Your task to perform on an android device: add a contact in the contacts app Image 0: 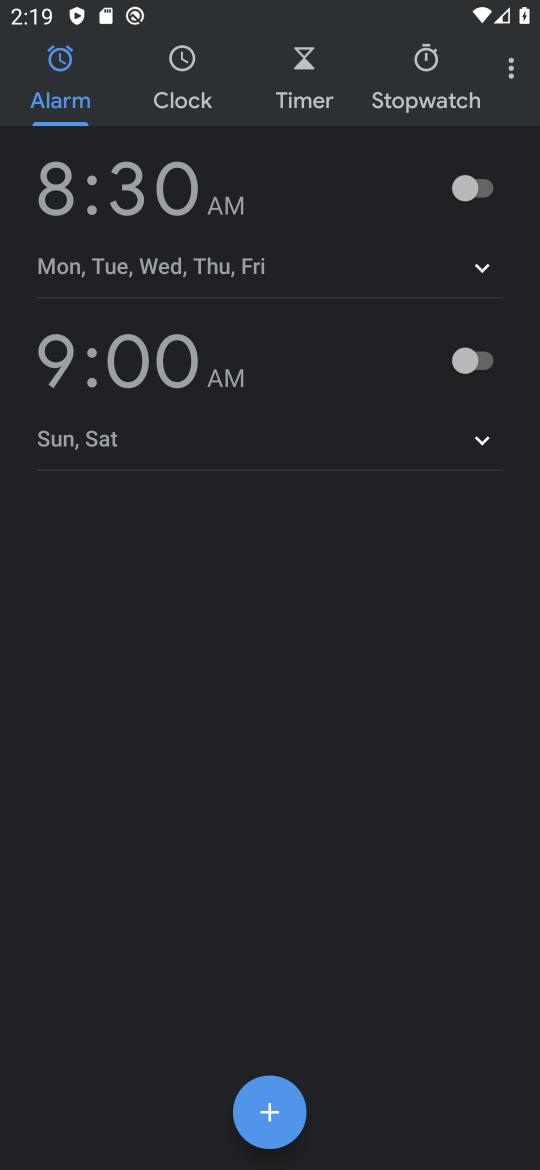
Step 0: press home button
Your task to perform on an android device: add a contact in the contacts app Image 1: 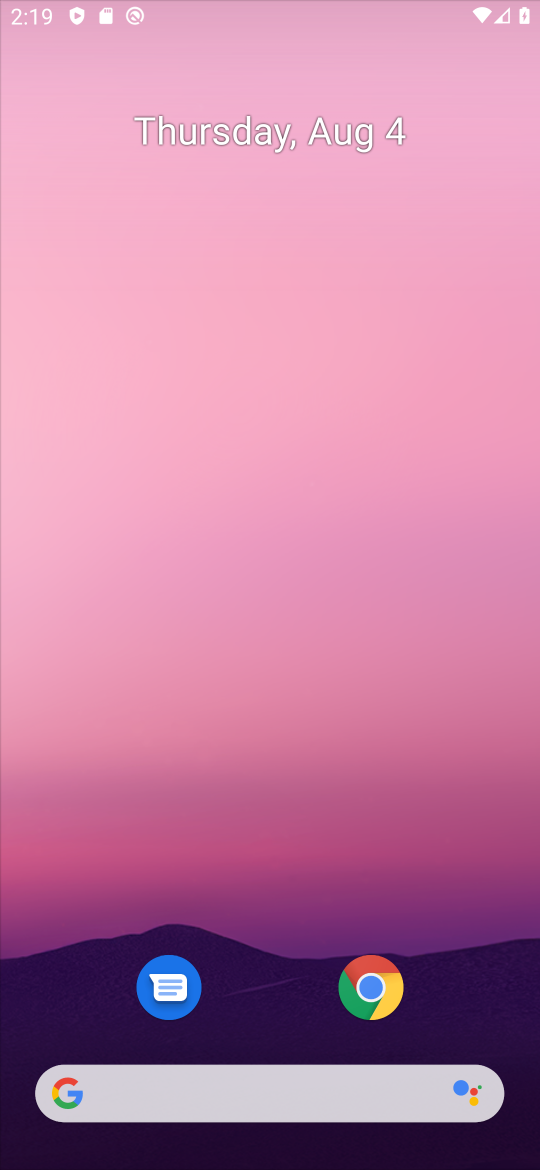
Step 1: drag from (515, 946) to (284, 130)
Your task to perform on an android device: add a contact in the contacts app Image 2: 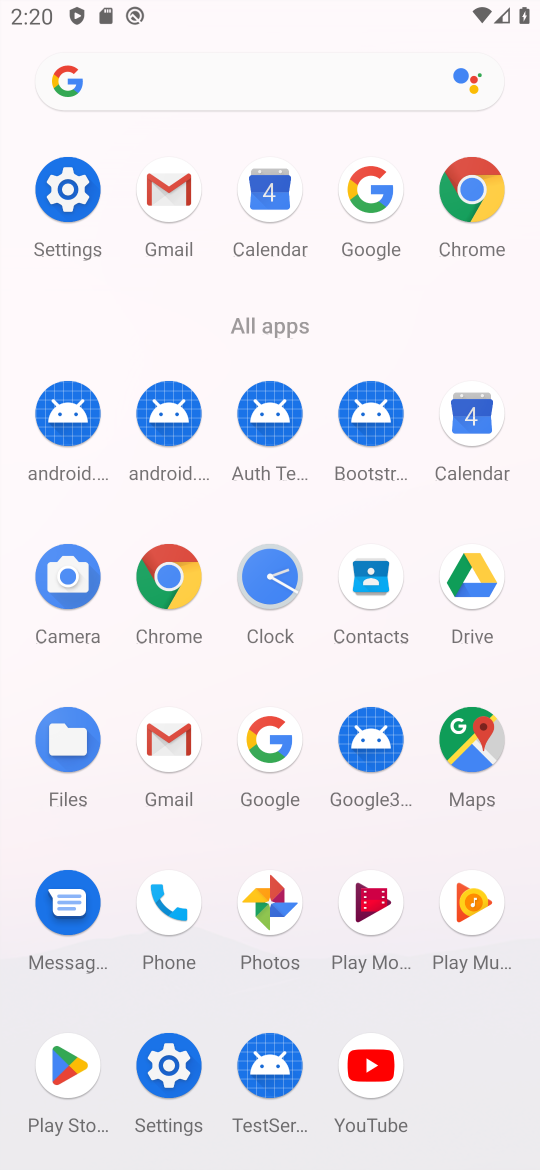
Step 2: click (372, 581)
Your task to perform on an android device: add a contact in the contacts app Image 3: 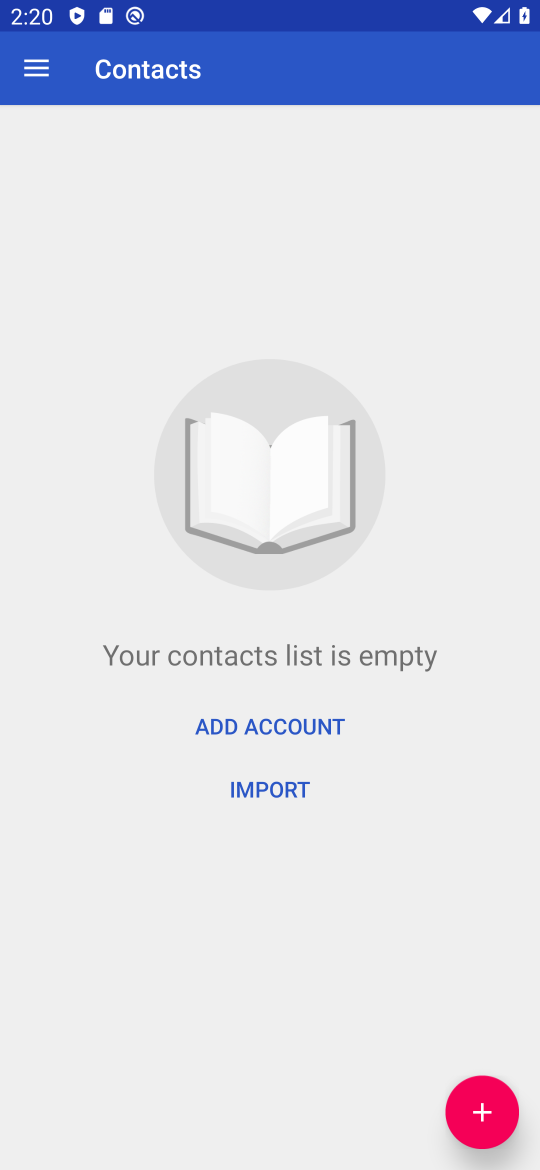
Step 3: task complete